Your task to perform on an android device: uninstall "Google Drive" Image 0: 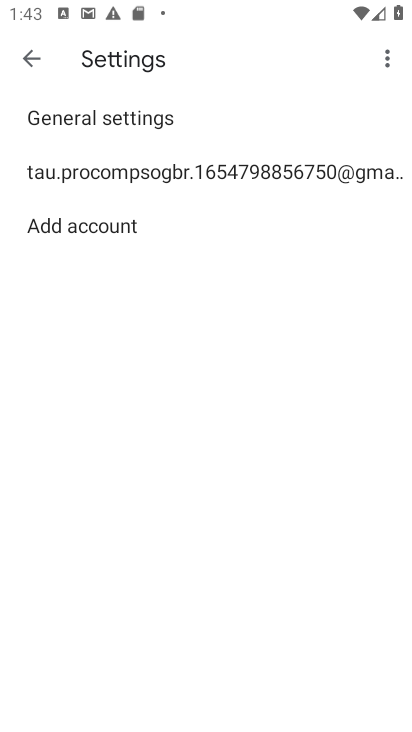
Step 0: task complete